Your task to perform on an android device: all mails in gmail Image 0: 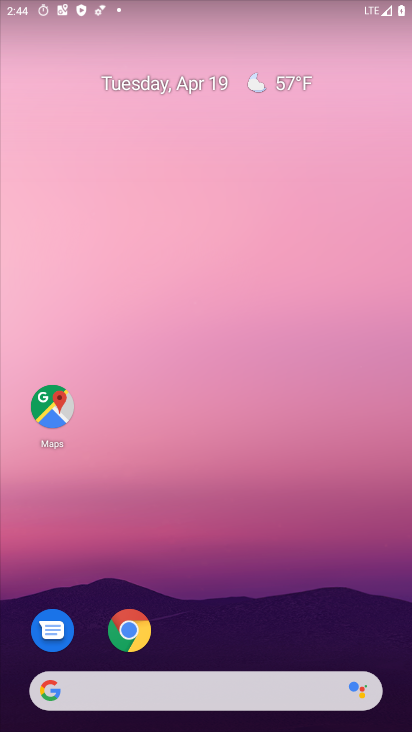
Step 0: drag from (228, 463) to (224, 65)
Your task to perform on an android device: all mails in gmail Image 1: 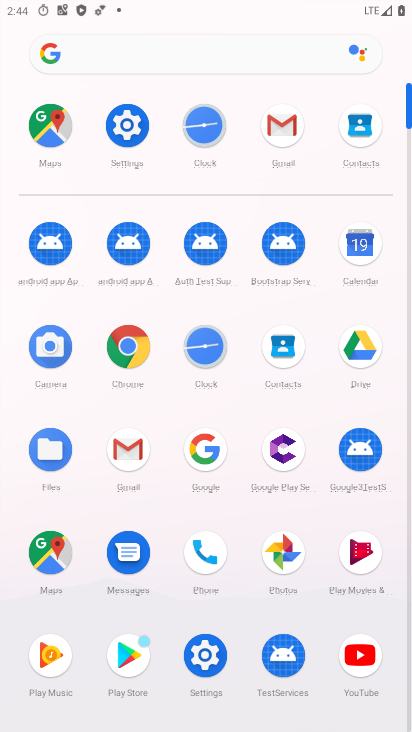
Step 1: click (132, 448)
Your task to perform on an android device: all mails in gmail Image 2: 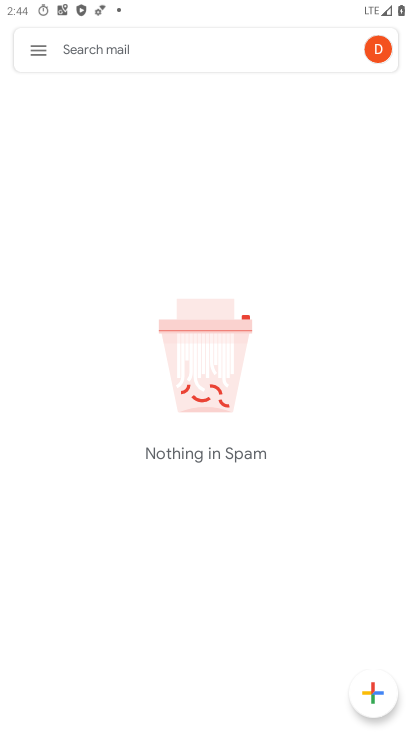
Step 2: click (29, 48)
Your task to perform on an android device: all mails in gmail Image 3: 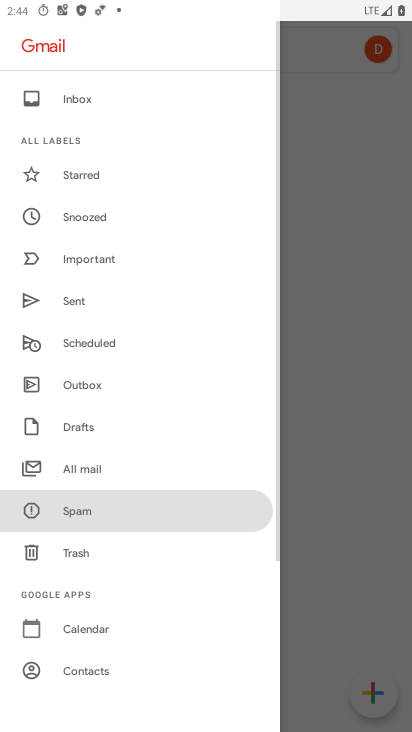
Step 3: click (144, 467)
Your task to perform on an android device: all mails in gmail Image 4: 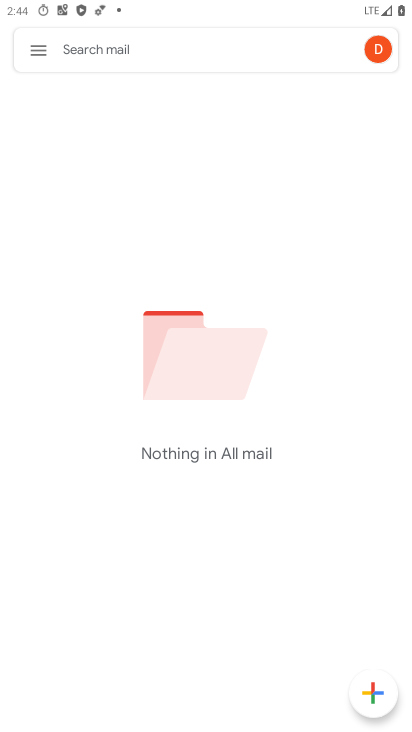
Step 4: task complete